Your task to perform on an android device: read, delete, or share a saved page in the chrome app Image 0: 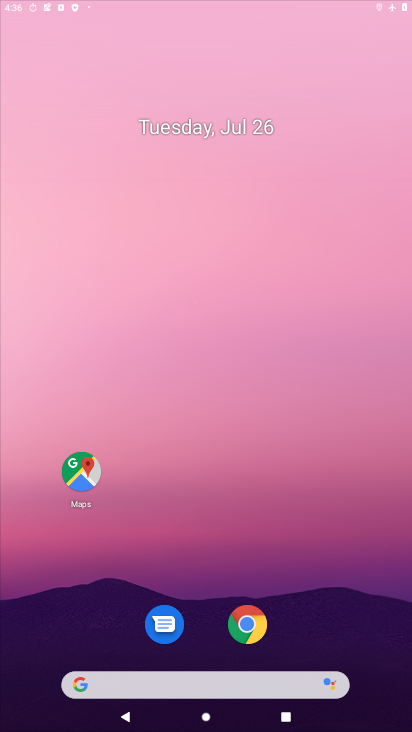
Step 0: drag from (313, 605) to (339, 4)
Your task to perform on an android device: read, delete, or share a saved page in the chrome app Image 1: 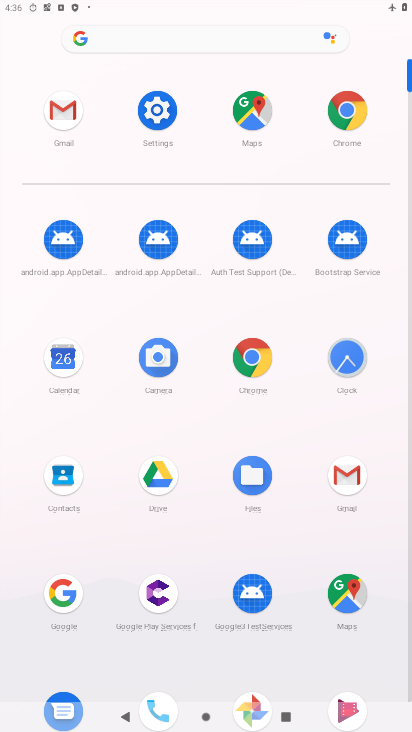
Step 1: click (255, 363)
Your task to perform on an android device: read, delete, or share a saved page in the chrome app Image 2: 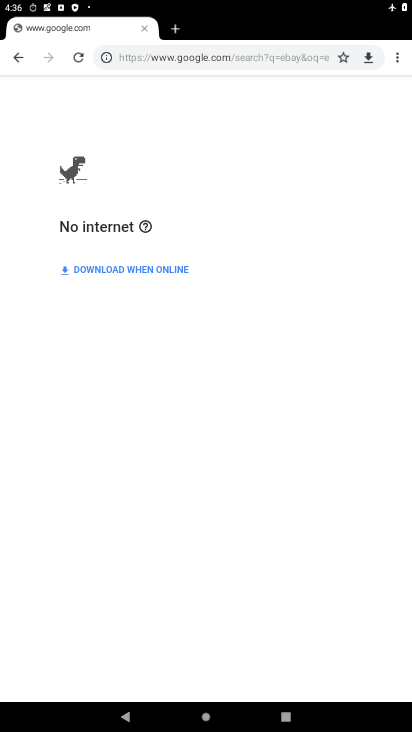
Step 2: click (400, 59)
Your task to perform on an android device: read, delete, or share a saved page in the chrome app Image 3: 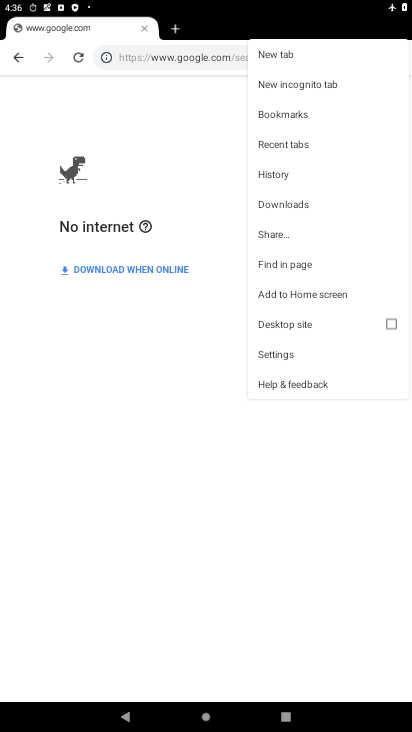
Step 3: click (296, 206)
Your task to perform on an android device: read, delete, or share a saved page in the chrome app Image 4: 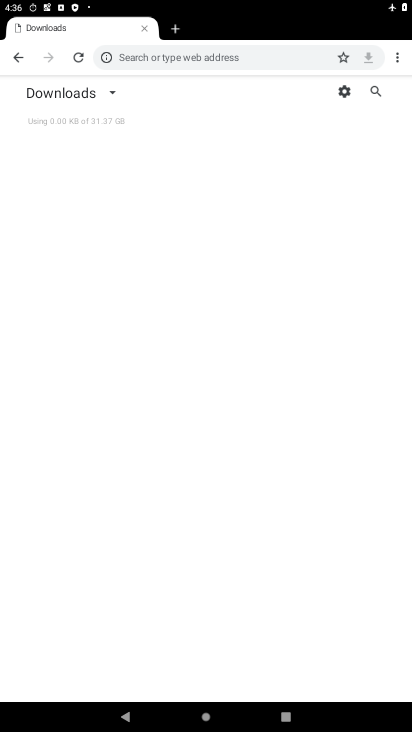
Step 4: task complete